Your task to perform on an android device: toggle pop-ups in chrome Image 0: 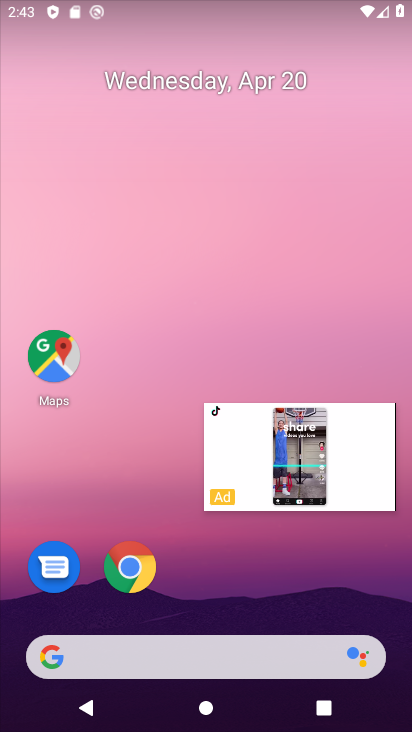
Step 0: click (135, 564)
Your task to perform on an android device: toggle pop-ups in chrome Image 1: 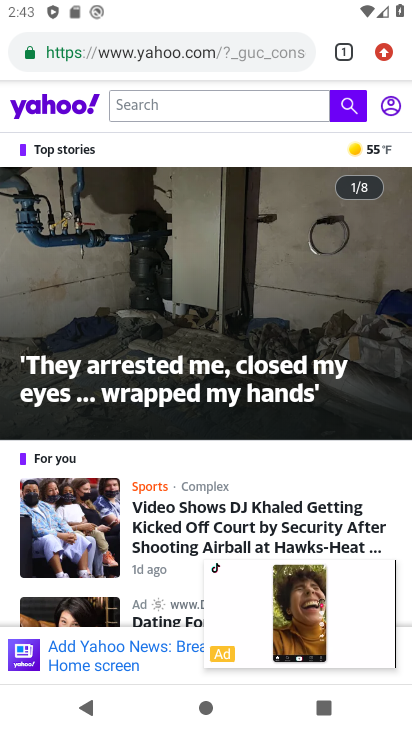
Step 1: click (380, 54)
Your task to perform on an android device: toggle pop-ups in chrome Image 2: 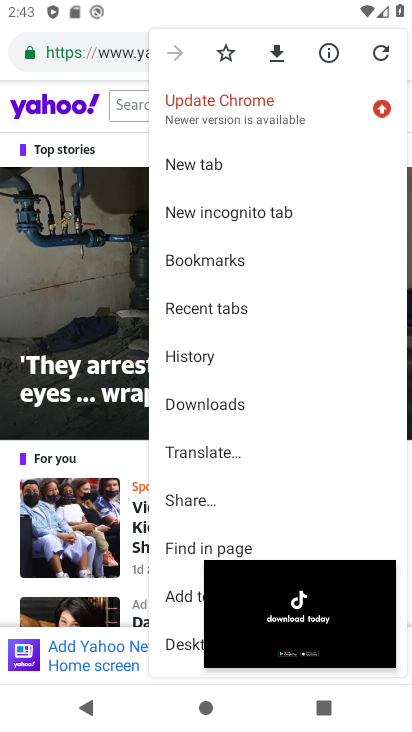
Step 2: drag from (205, 450) to (254, 128)
Your task to perform on an android device: toggle pop-ups in chrome Image 3: 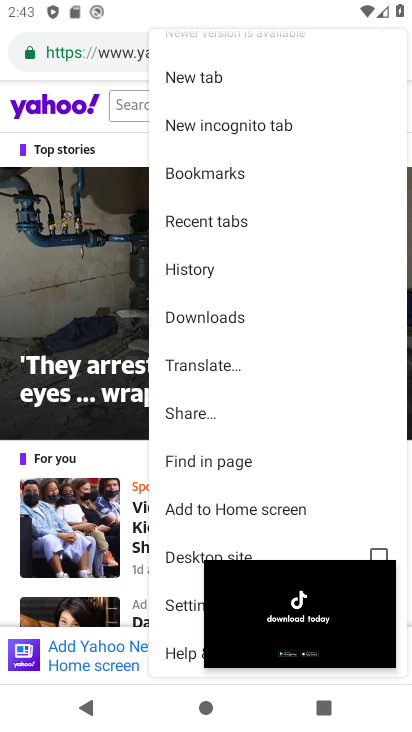
Step 3: click (174, 601)
Your task to perform on an android device: toggle pop-ups in chrome Image 4: 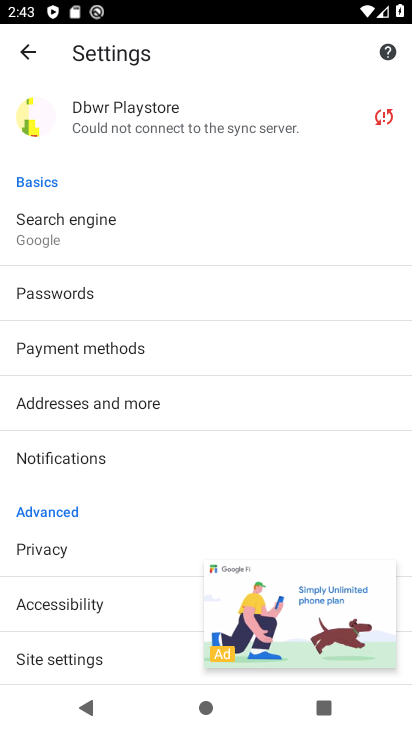
Step 4: drag from (42, 383) to (43, 312)
Your task to perform on an android device: toggle pop-ups in chrome Image 5: 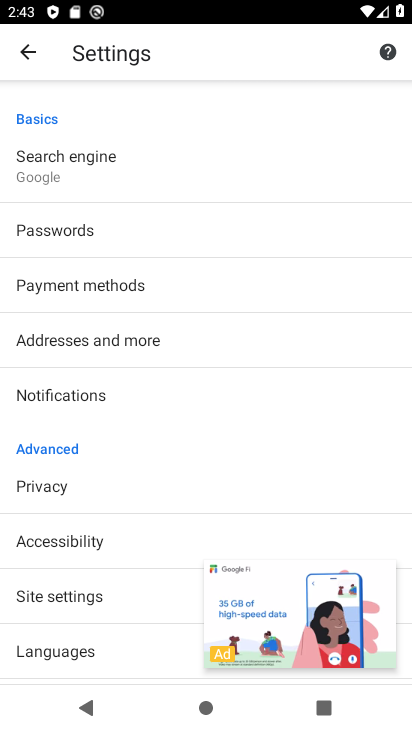
Step 5: click (52, 592)
Your task to perform on an android device: toggle pop-ups in chrome Image 6: 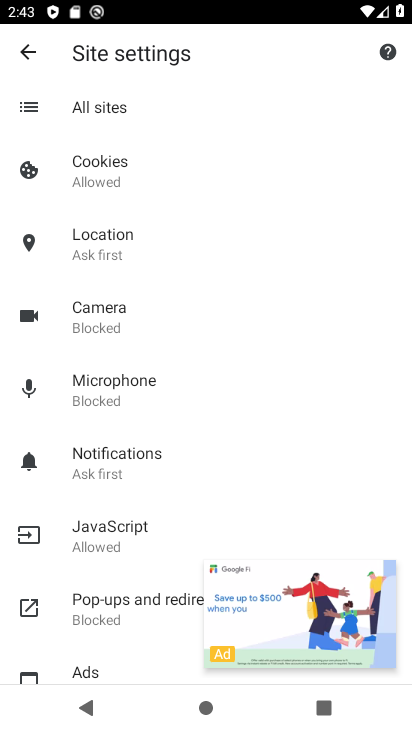
Step 6: click (108, 608)
Your task to perform on an android device: toggle pop-ups in chrome Image 7: 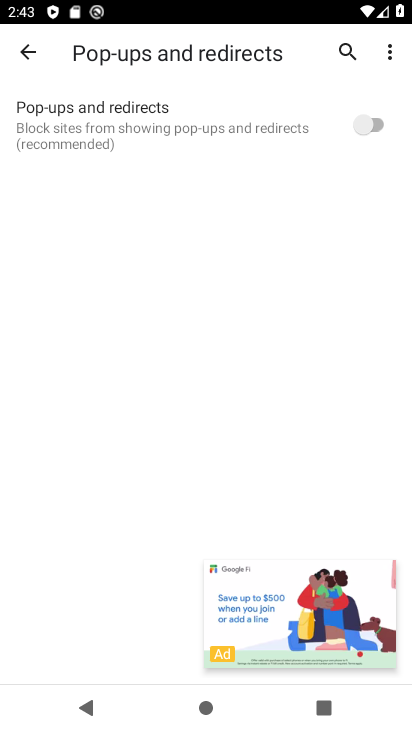
Step 7: click (299, 605)
Your task to perform on an android device: toggle pop-ups in chrome Image 8: 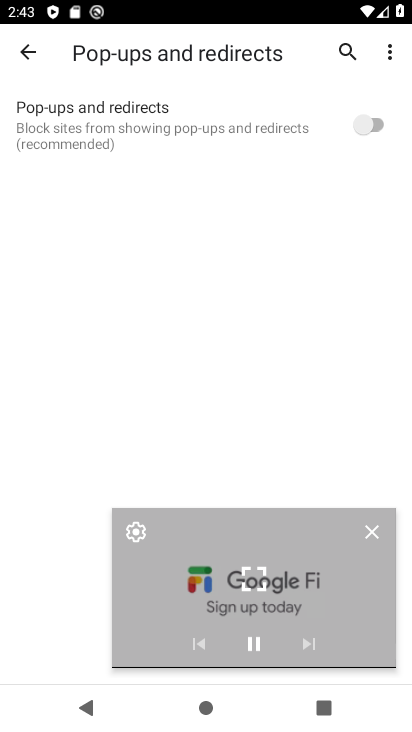
Step 8: click (381, 536)
Your task to perform on an android device: toggle pop-ups in chrome Image 9: 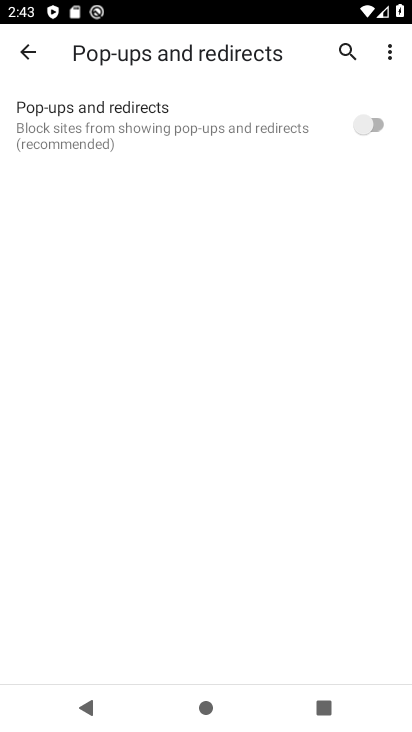
Step 9: click (372, 119)
Your task to perform on an android device: toggle pop-ups in chrome Image 10: 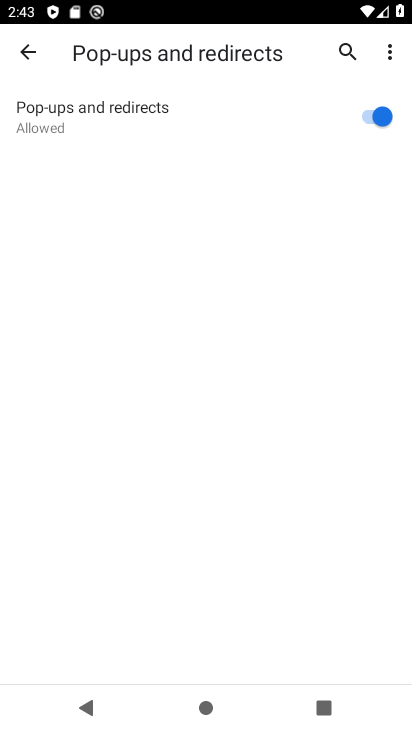
Step 10: task complete